Your task to perform on an android device: Search for pizza restaurants on Maps Image 0: 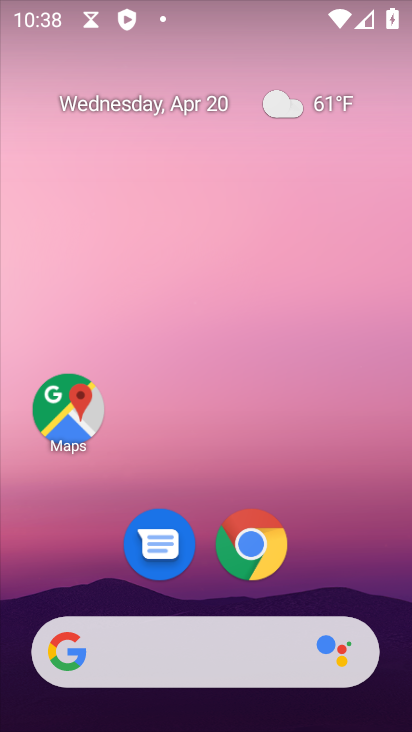
Step 0: drag from (151, 656) to (353, 44)
Your task to perform on an android device: Search for pizza restaurants on Maps Image 1: 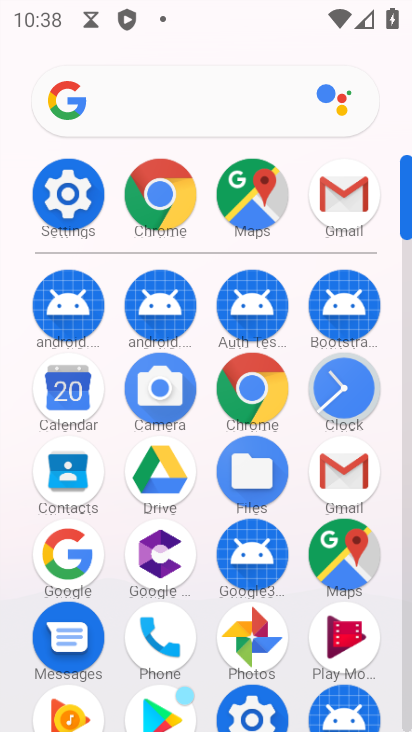
Step 1: click (354, 570)
Your task to perform on an android device: Search for pizza restaurants on Maps Image 2: 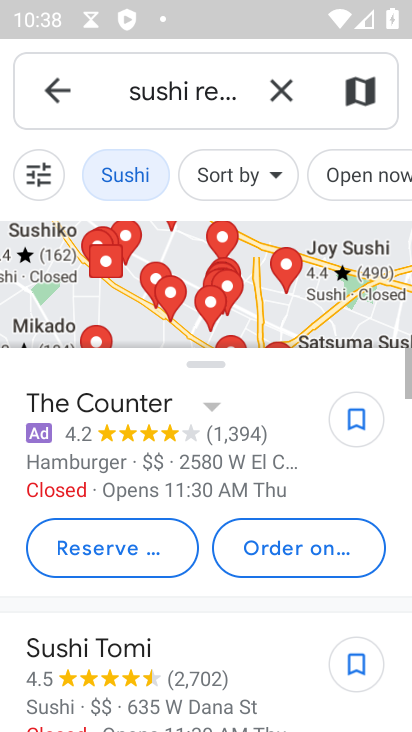
Step 2: click (272, 84)
Your task to perform on an android device: Search for pizza restaurants on Maps Image 3: 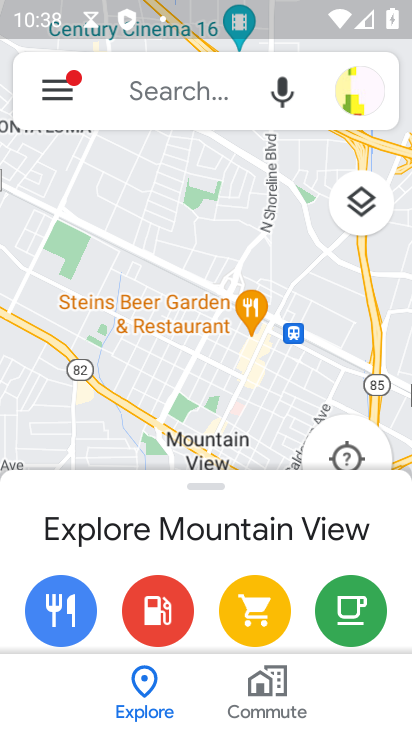
Step 3: click (172, 88)
Your task to perform on an android device: Search for pizza restaurants on Maps Image 4: 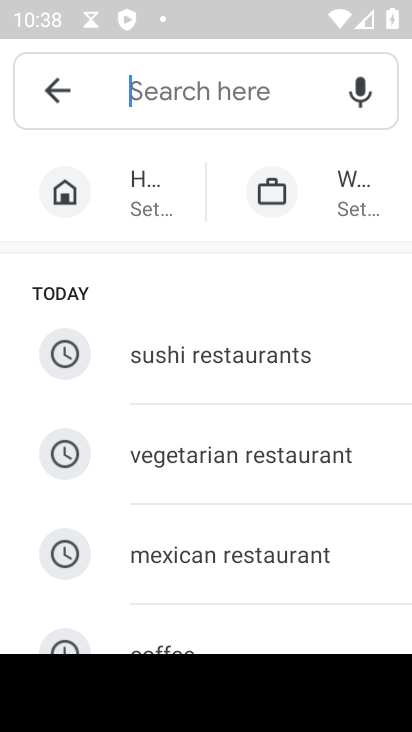
Step 4: drag from (223, 565) to (369, 186)
Your task to perform on an android device: Search for pizza restaurants on Maps Image 5: 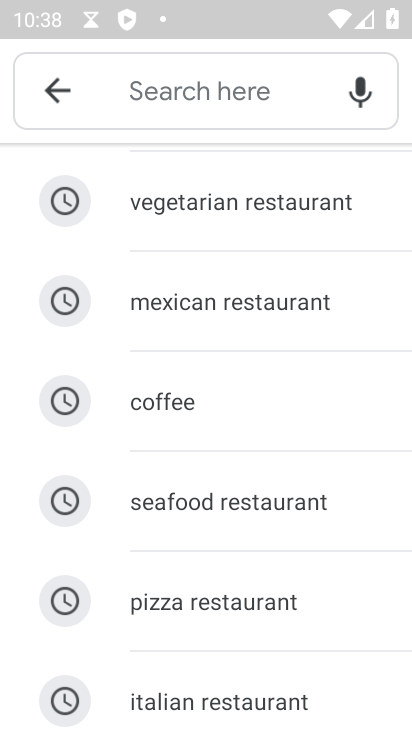
Step 5: click (196, 610)
Your task to perform on an android device: Search for pizza restaurants on Maps Image 6: 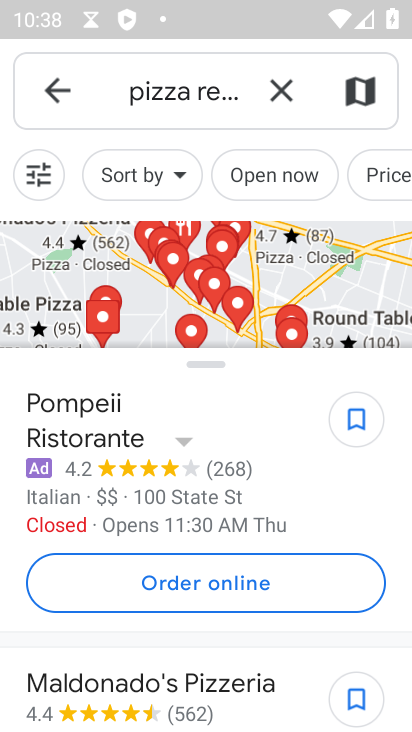
Step 6: task complete